Your task to perform on an android device: What's the weather going to be tomorrow? Image 0: 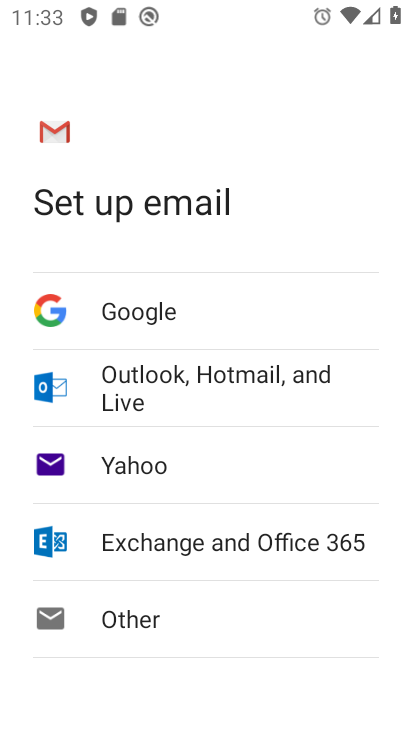
Step 0: press home button
Your task to perform on an android device: What's the weather going to be tomorrow? Image 1: 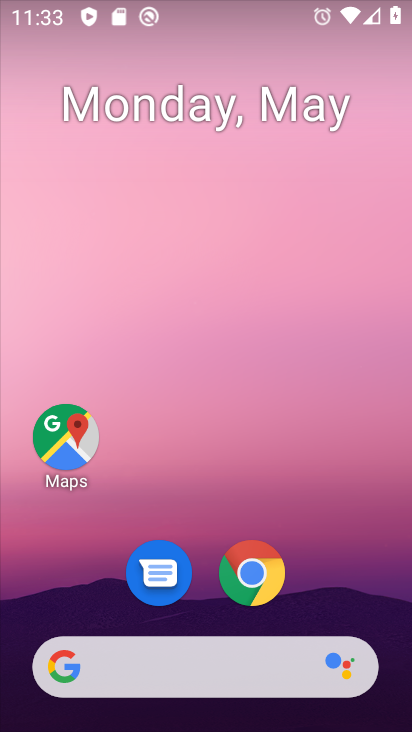
Step 1: drag from (133, 716) to (160, 99)
Your task to perform on an android device: What's the weather going to be tomorrow? Image 2: 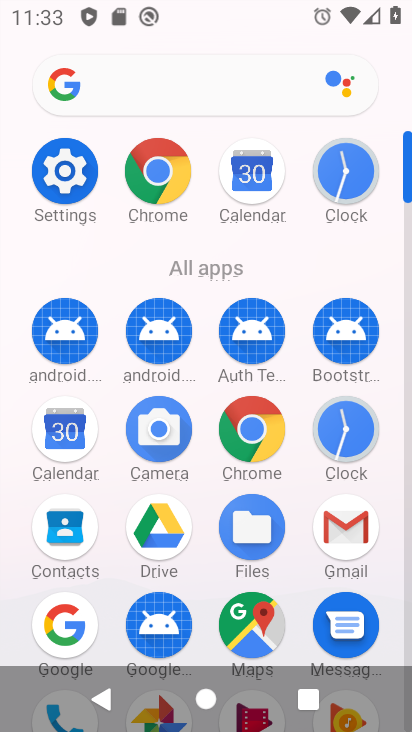
Step 2: click (239, 425)
Your task to perform on an android device: What's the weather going to be tomorrow? Image 3: 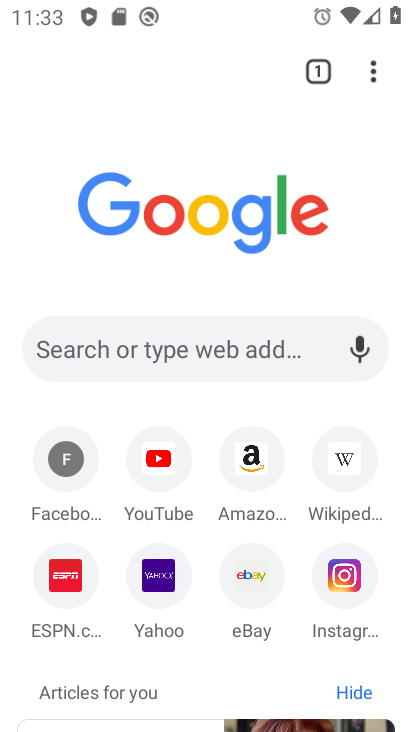
Step 3: click (95, 345)
Your task to perform on an android device: What's the weather going to be tomorrow? Image 4: 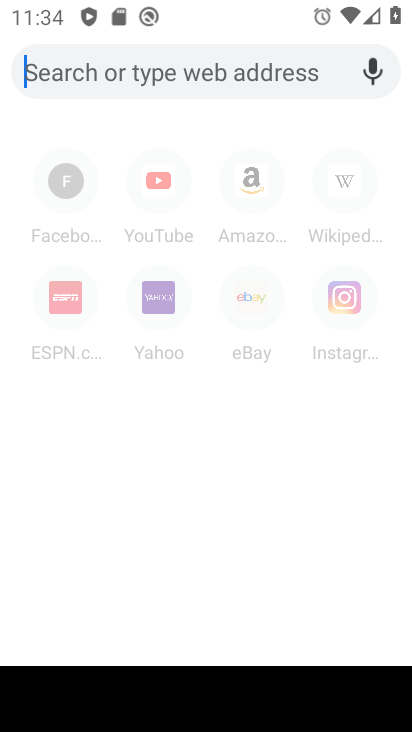
Step 4: type "weather tomorrow"
Your task to perform on an android device: What's the weather going to be tomorrow? Image 5: 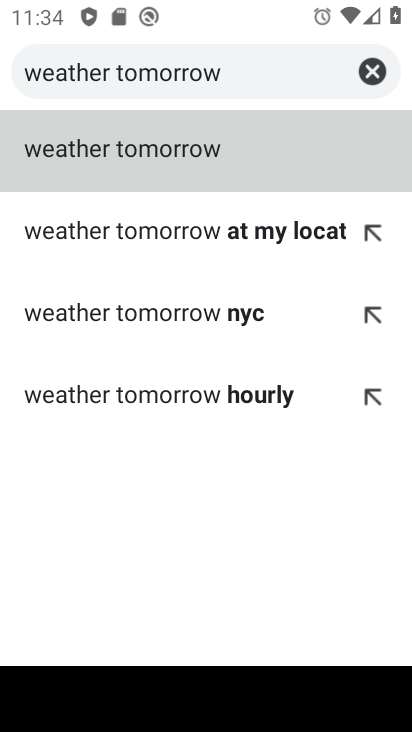
Step 5: click (123, 151)
Your task to perform on an android device: What's the weather going to be tomorrow? Image 6: 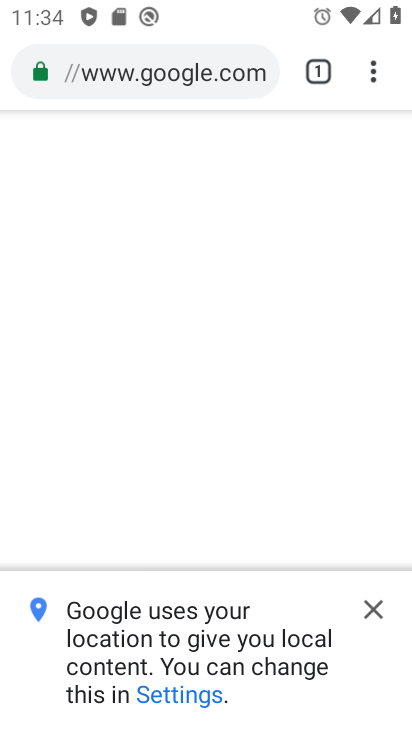
Step 6: click (365, 609)
Your task to perform on an android device: What's the weather going to be tomorrow? Image 7: 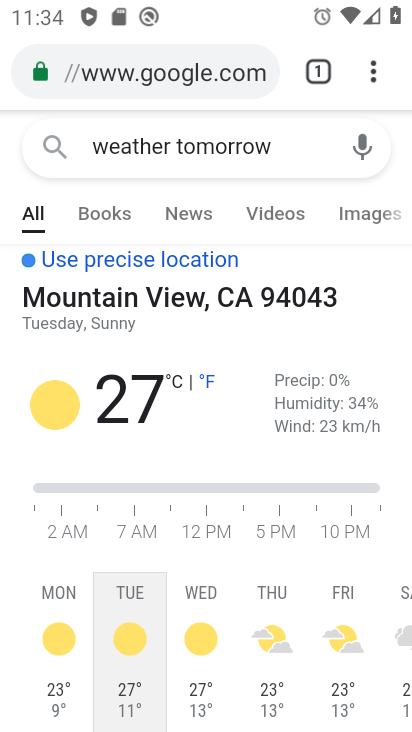
Step 7: task complete